Your task to perform on an android device: turn off picture-in-picture Image 0: 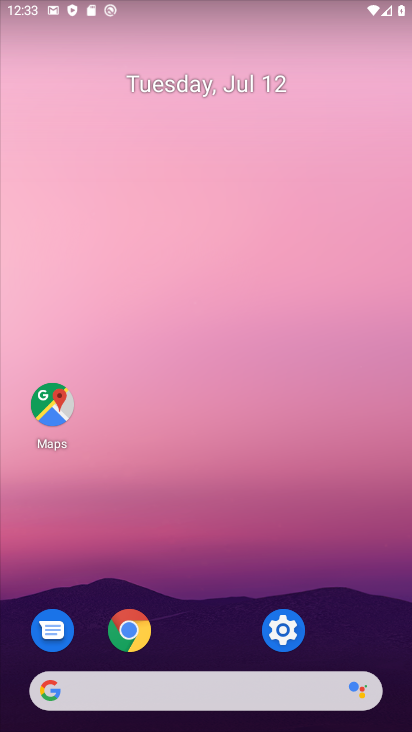
Step 0: drag from (259, 694) to (220, 16)
Your task to perform on an android device: turn off picture-in-picture Image 1: 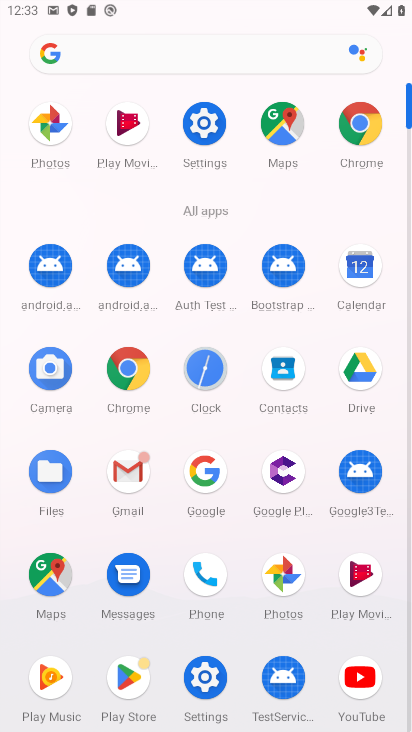
Step 1: click (355, 675)
Your task to perform on an android device: turn off picture-in-picture Image 2: 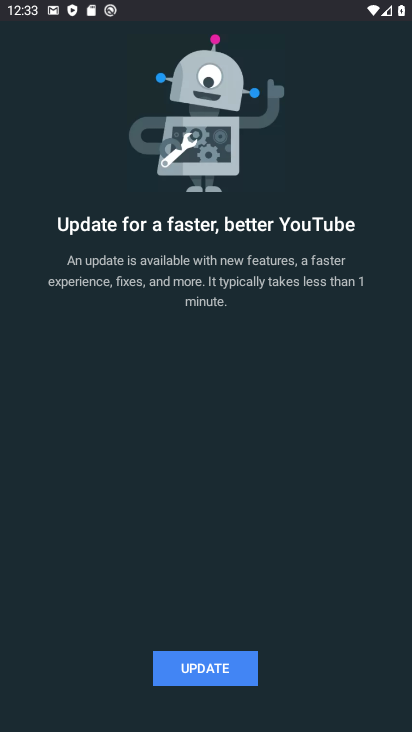
Step 2: click (198, 683)
Your task to perform on an android device: turn off picture-in-picture Image 3: 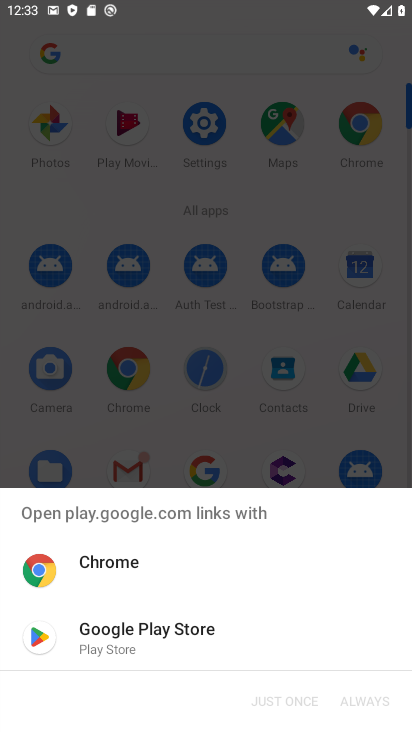
Step 3: click (182, 635)
Your task to perform on an android device: turn off picture-in-picture Image 4: 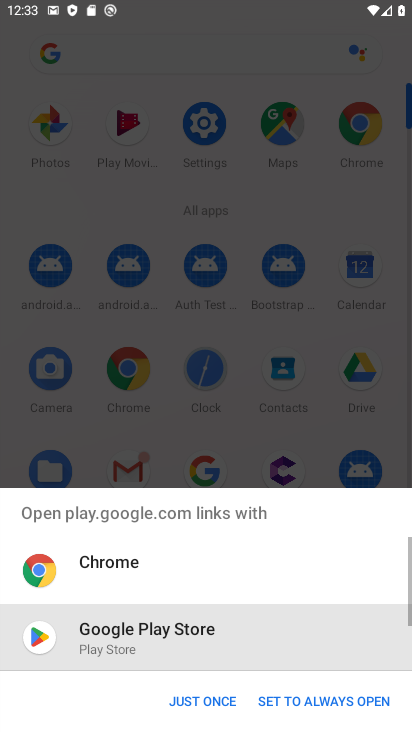
Step 4: click (221, 696)
Your task to perform on an android device: turn off picture-in-picture Image 5: 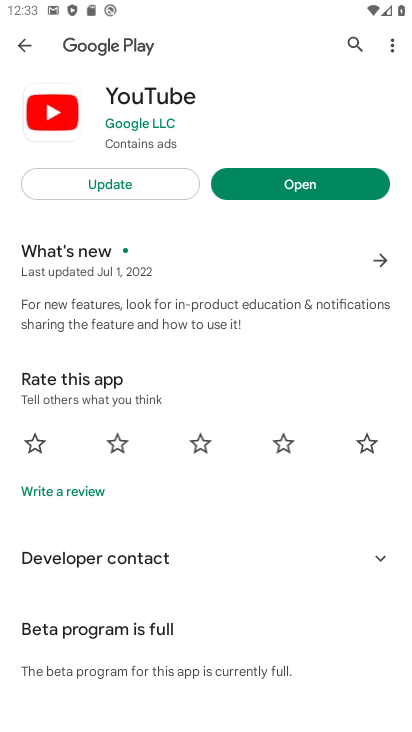
Step 5: click (139, 176)
Your task to perform on an android device: turn off picture-in-picture Image 6: 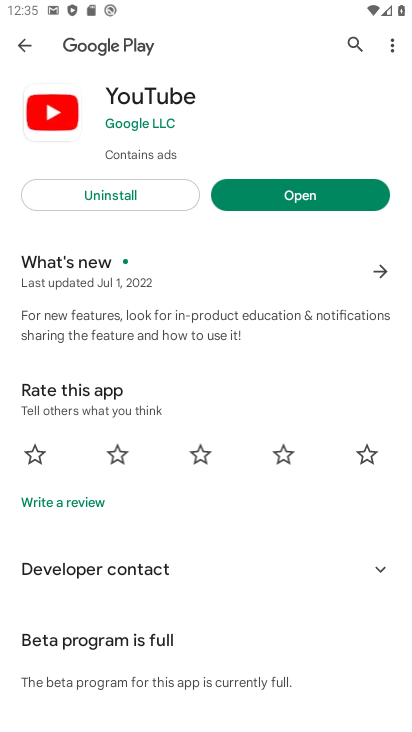
Step 6: click (249, 190)
Your task to perform on an android device: turn off picture-in-picture Image 7: 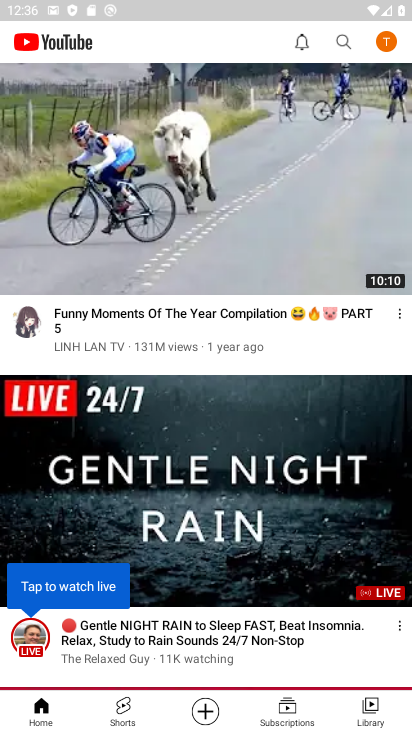
Step 7: click (386, 38)
Your task to perform on an android device: turn off picture-in-picture Image 8: 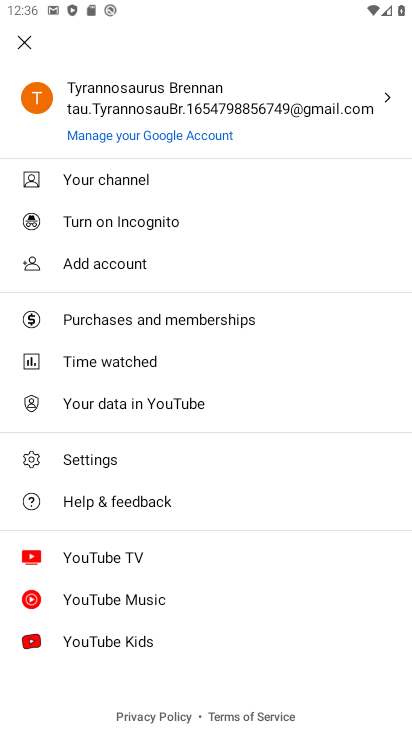
Step 8: click (79, 463)
Your task to perform on an android device: turn off picture-in-picture Image 9: 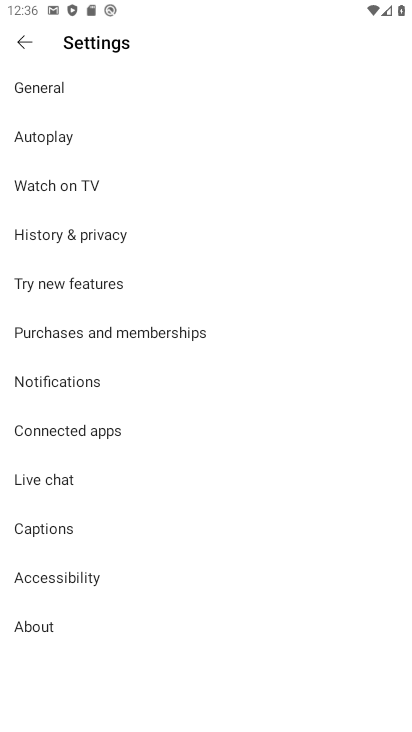
Step 9: click (61, 97)
Your task to perform on an android device: turn off picture-in-picture Image 10: 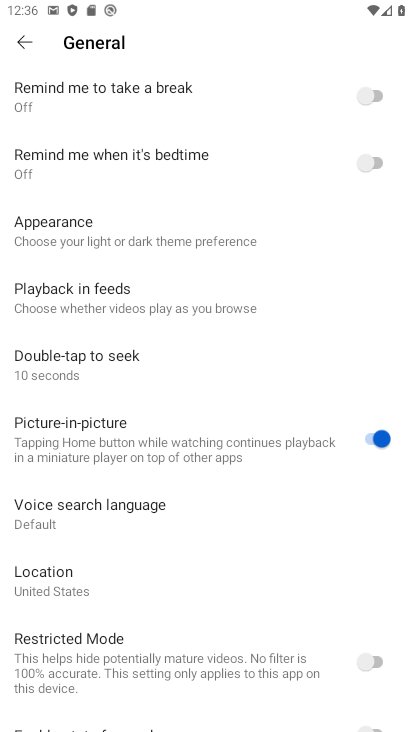
Step 10: click (113, 439)
Your task to perform on an android device: turn off picture-in-picture Image 11: 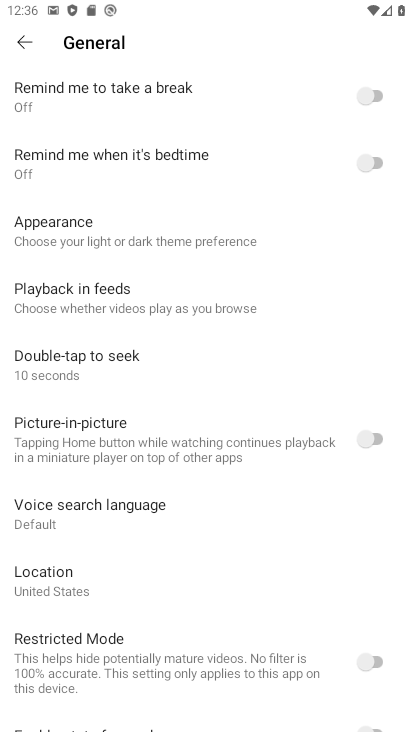
Step 11: task complete